Your task to perform on an android device: change keyboard looks Image 0: 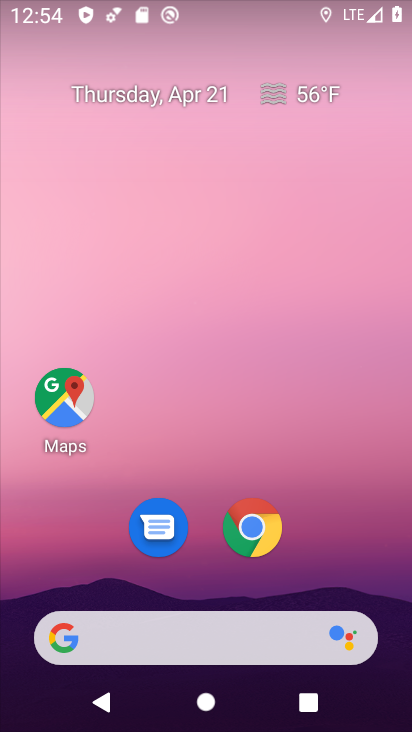
Step 0: drag from (206, 448) to (244, 250)
Your task to perform on an android device: change keyboard looks Image 1: 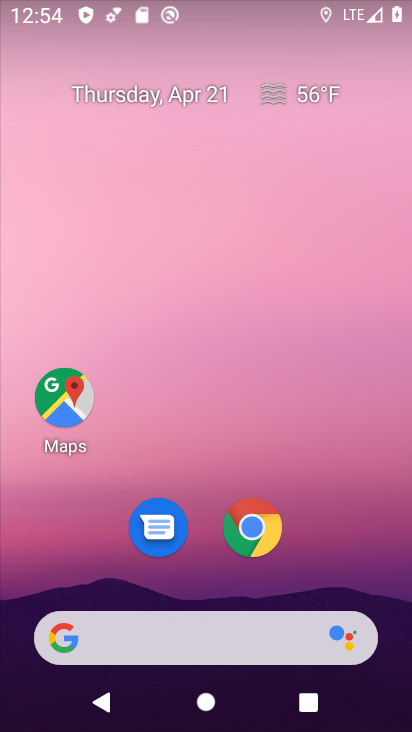
Step 1: drag from (204, 447) to (248, 80)
Your task to perform on an android device: change keyboard looks Image 2: 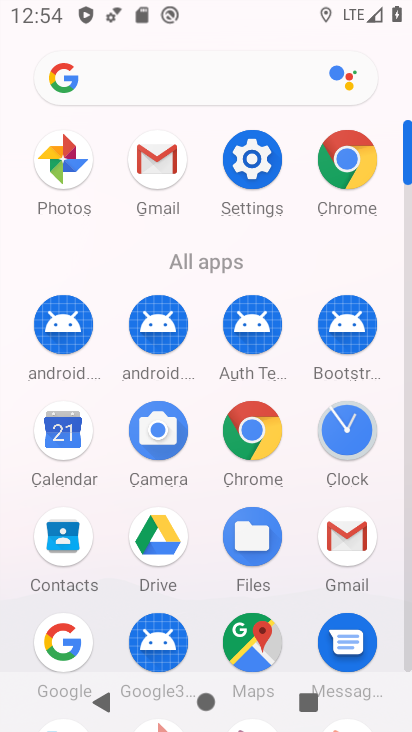
Step 2: click (258, 155)
Your task to perform on an android device: change keyboard looks Image 3: 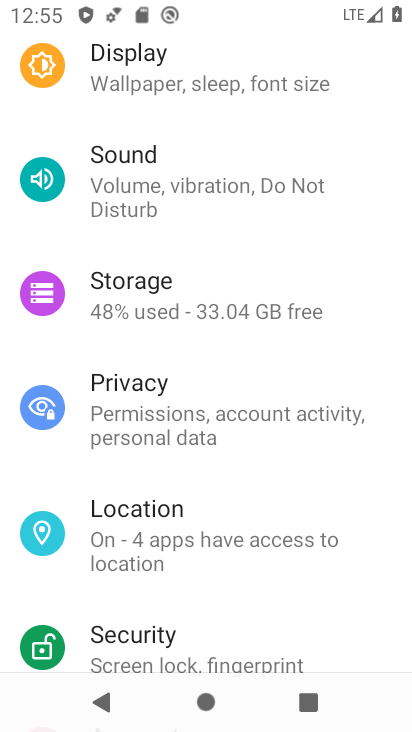
Step 3: drag from (161, 594) to (214, 150)
Your task to perform on an android device: change keyboard looks Image 4: 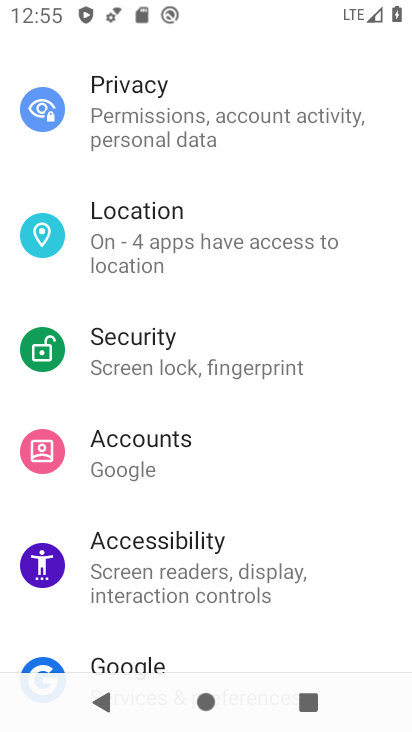
Step 4: drag from (193, 423) to (235, 210)
Your task to perform on an android device: change keyboard looks Image 5: 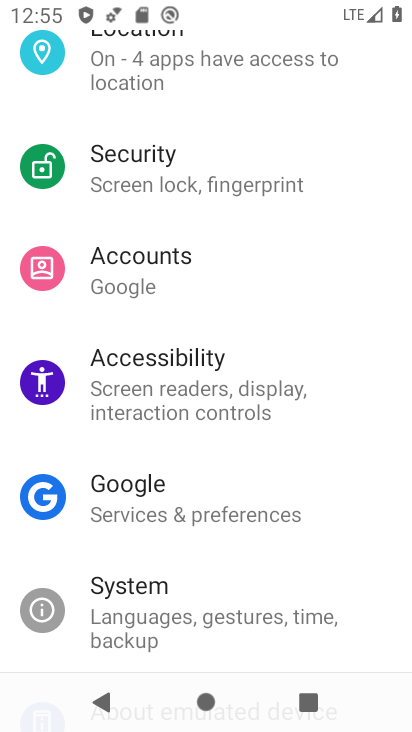
Step 5: click (176, 592)
Your task to perform on an android device: change keyboard looks Image 6: 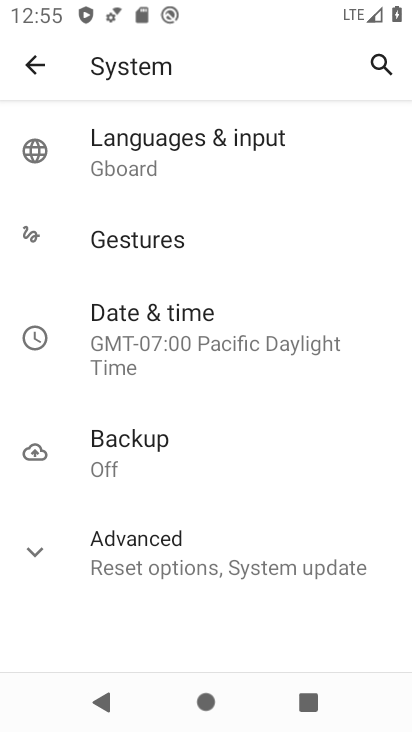
Step 6: click (213, 160)
Your task to perform on an android device: change keyboard looks Image 7: 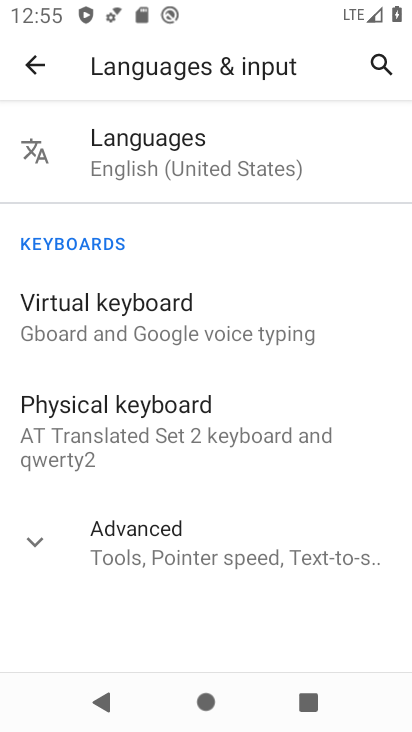
Step 7: click (156, 303)
Your task to perform on an android device: change keyboard looks Image 8: 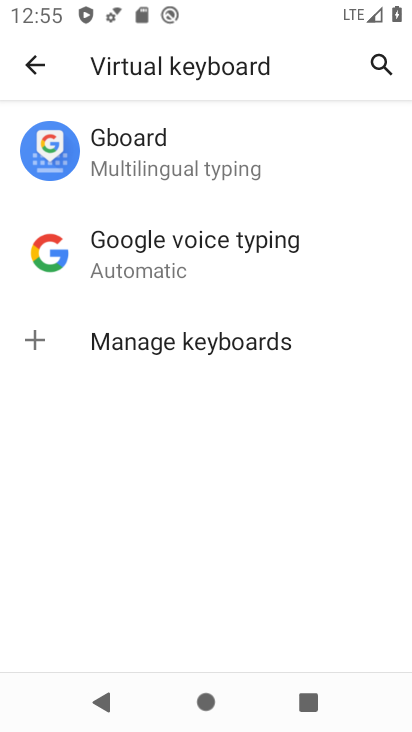
Step 8: click (154, 151)
Your task to perform on an android device: change keyboard looks Image 9: 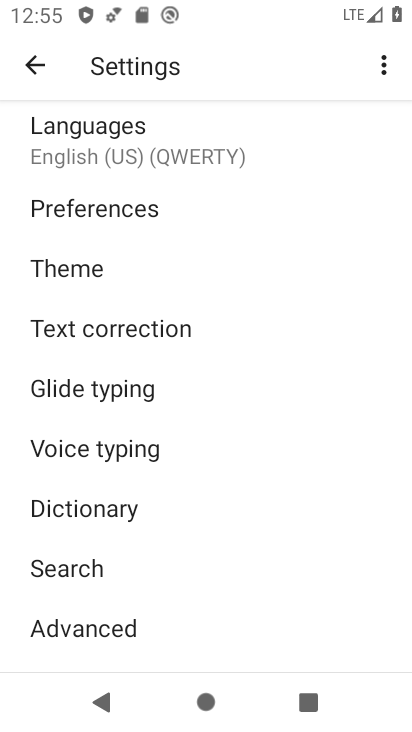
Step 9: click (76, 275)
Your task to perform on an android device: change keyboard looks Image 10: 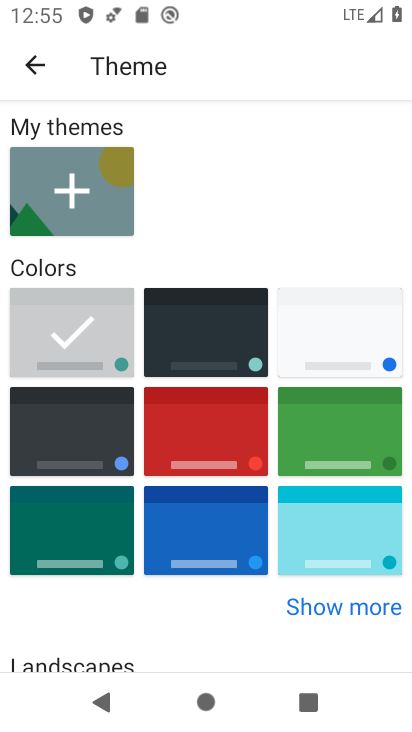
Step 10: click (228, 355)
Your task to perform on an android device: change keyboard looks Image 11: 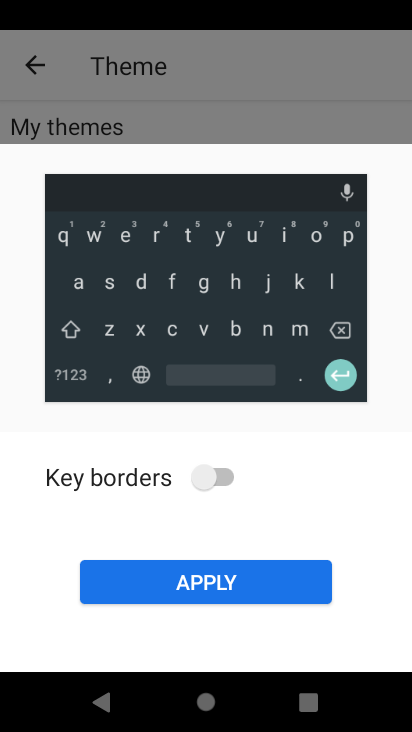
Step 11: click (242, 589)
Your task to perform on an android device: change keyboard looks Image 12: 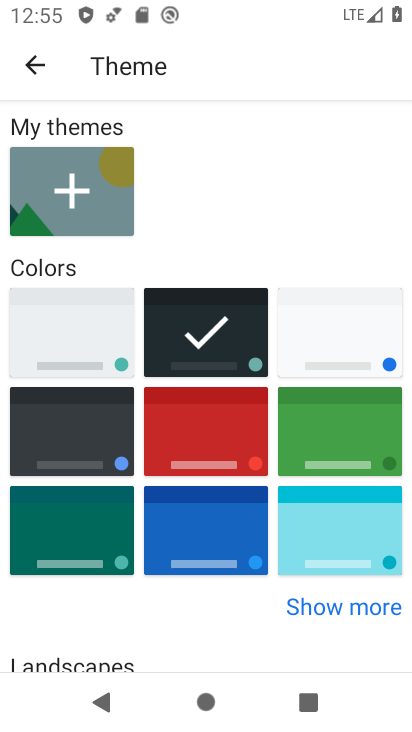
Step 12: task complete